Your task to perform on an android device: Open calendar and show me the fourth week of next month Image 0: 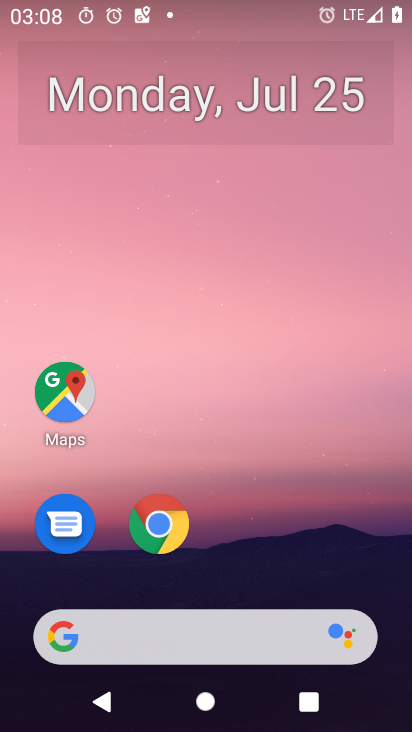
Step 0: drag from (307, 571) to (330, 40)
Your task to perform on an android device: Open calendar and show me the fourth week of next month Image 1: 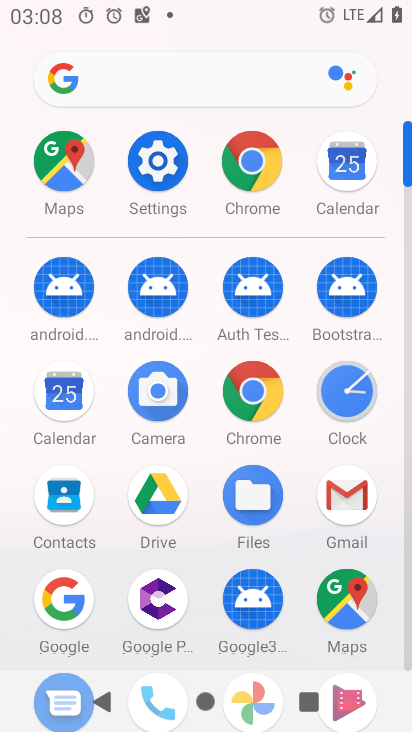
Step 1: click (360, 169)
Your task to perform on an android device: Open calendar and show me the fourth week of next month Image 2: 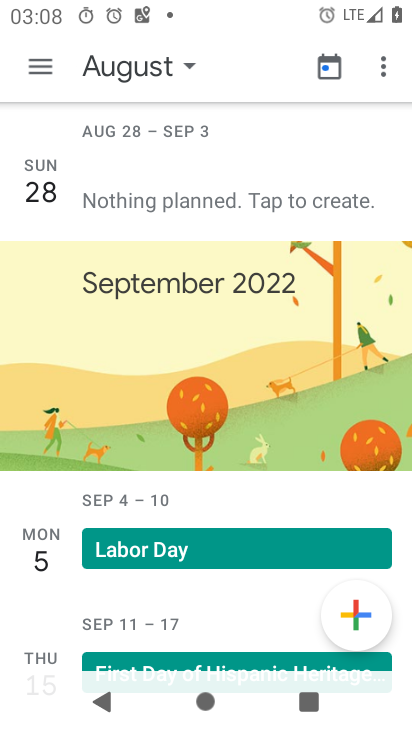
Step 2: click (189, 65)
Your task to perform on an android device: Open calendar and show me the fourth week of next month Image 3: 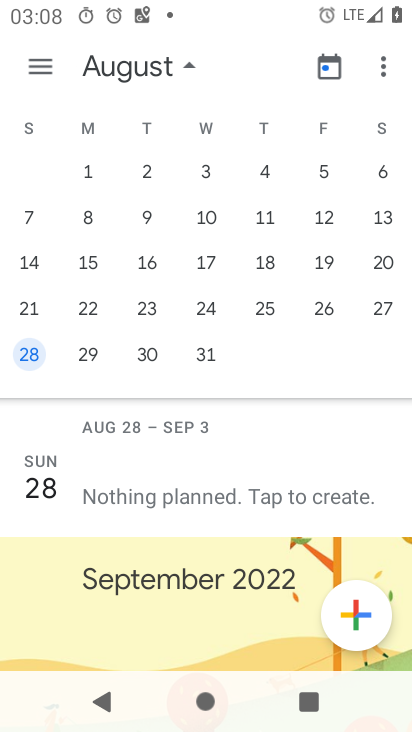
Step 3: task complete